Your task to perform on an android device: Open Google Maps Image 0: 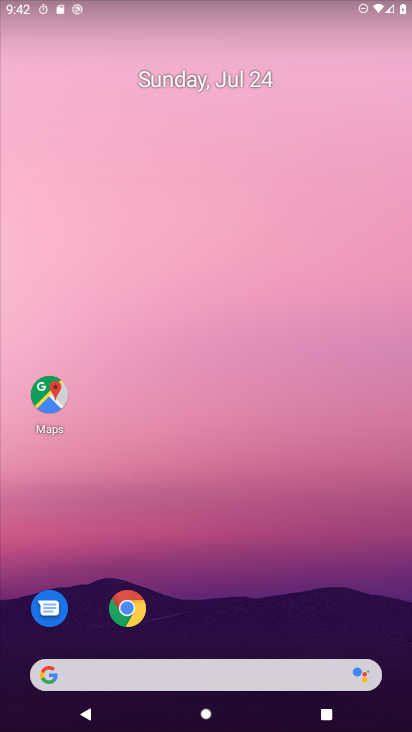
Step 0: drag from (176, 440) to (235, 99)
Your task to perform on an android device: Open Google Maps Image 1: 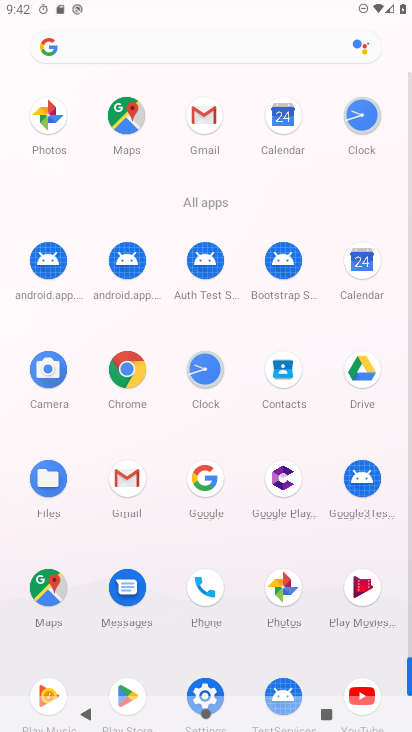
Step 1: click (133, 42)
Your task to perform on an android device: Open Google Maps Image 2: 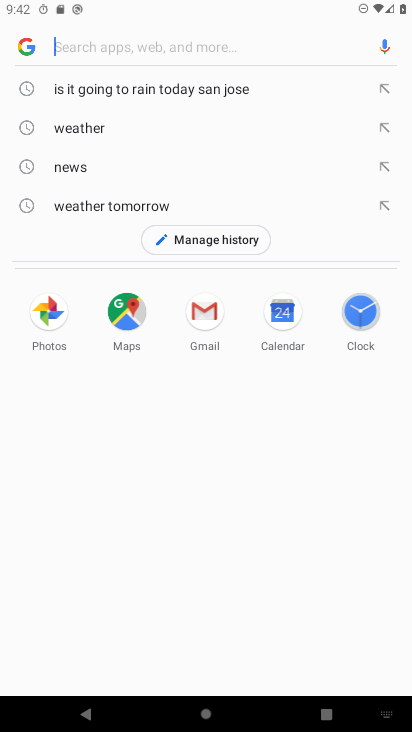
Step 2: press home button
Your task to perform on an android device: Open Google Maps Image 3: 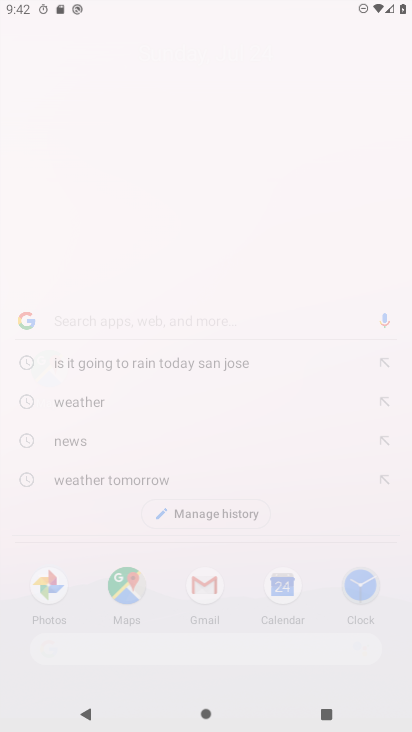
Step 3: drag from (153, 638) to (197, 79)
Your task to perform on an android device: Open Google Maps Image 4: 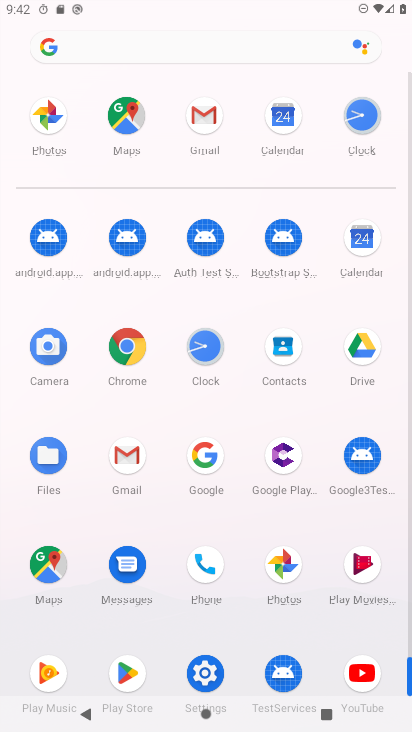
Step 4: click (42, 557)
Your task to perform on an android device: Open Google Maps Image 5: 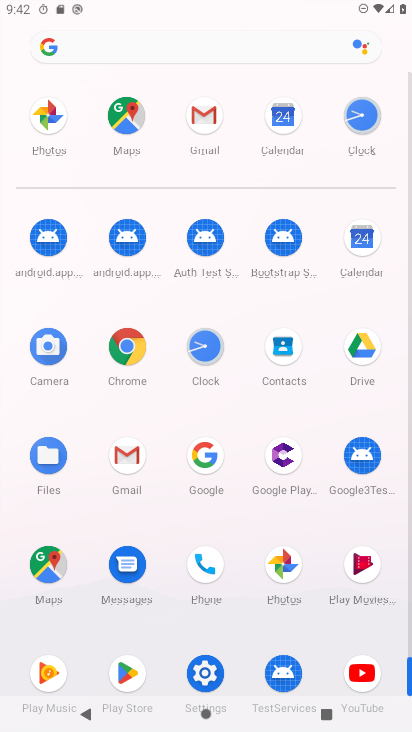
Step 5: click (42, 557)
Your task to perform on an android device: Open Google Maps Image 6: 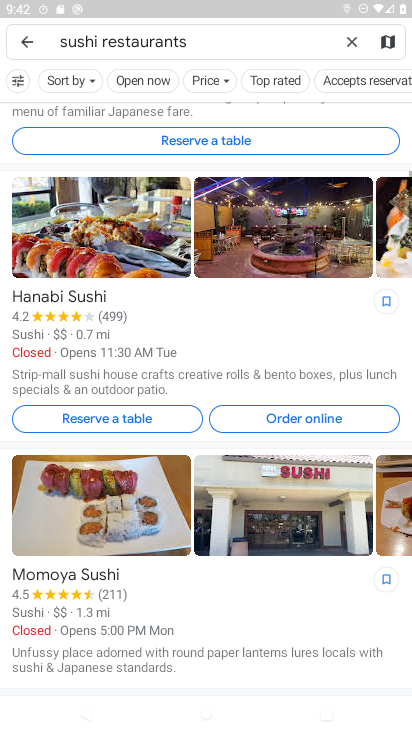
Step 6: task complete